Your task to perform on an android device: Go to Google maps Image 0: 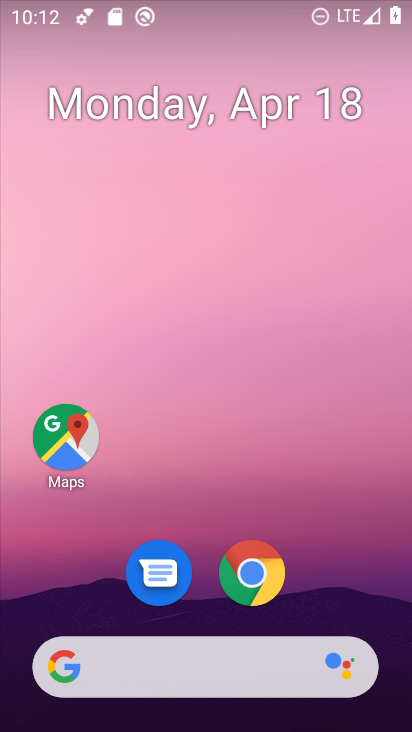
Step 0: drag from (353, 598) to (195, 19)
Your task to perform on an android device: Go to Google maps Image 1: 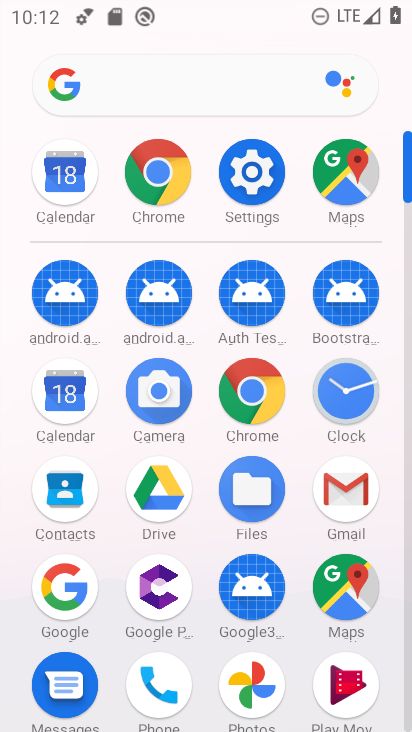
Step 1: click (358, 568)
Your task to perform on an android device: Go to Google maps Image 2: 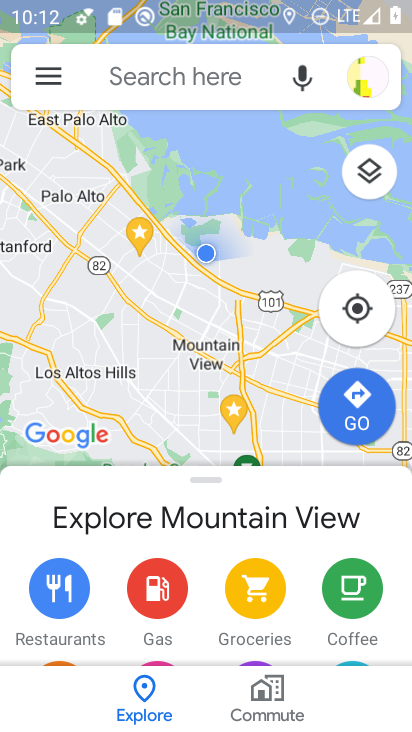
Step 2: task complete